Your task to perform on an android device: Go to internet settings Image 0: 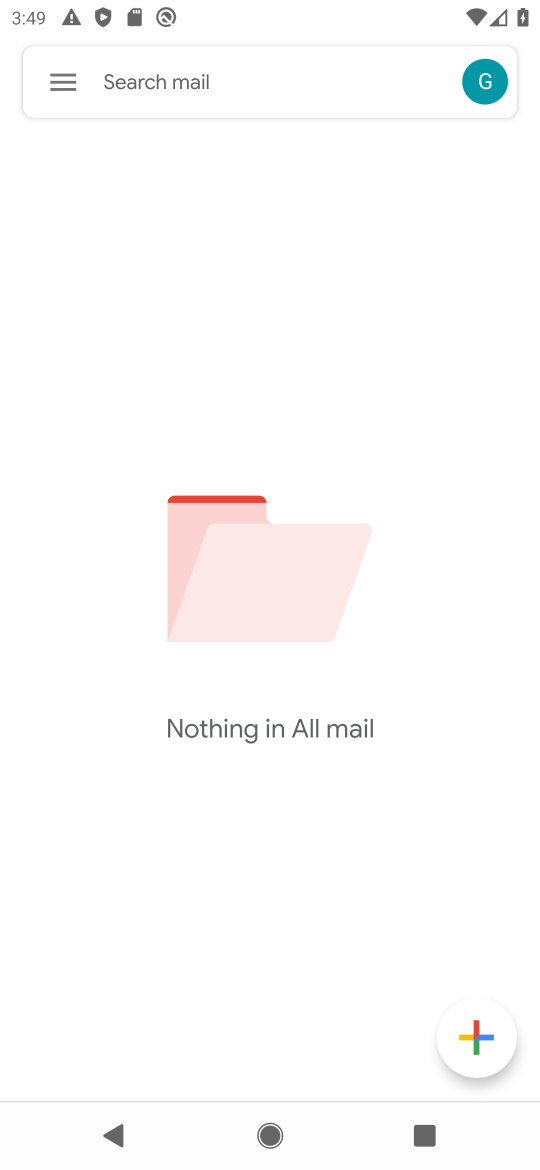
Step 0: press back button
Your task to perform on an android device: Go to internet settings Image 1: 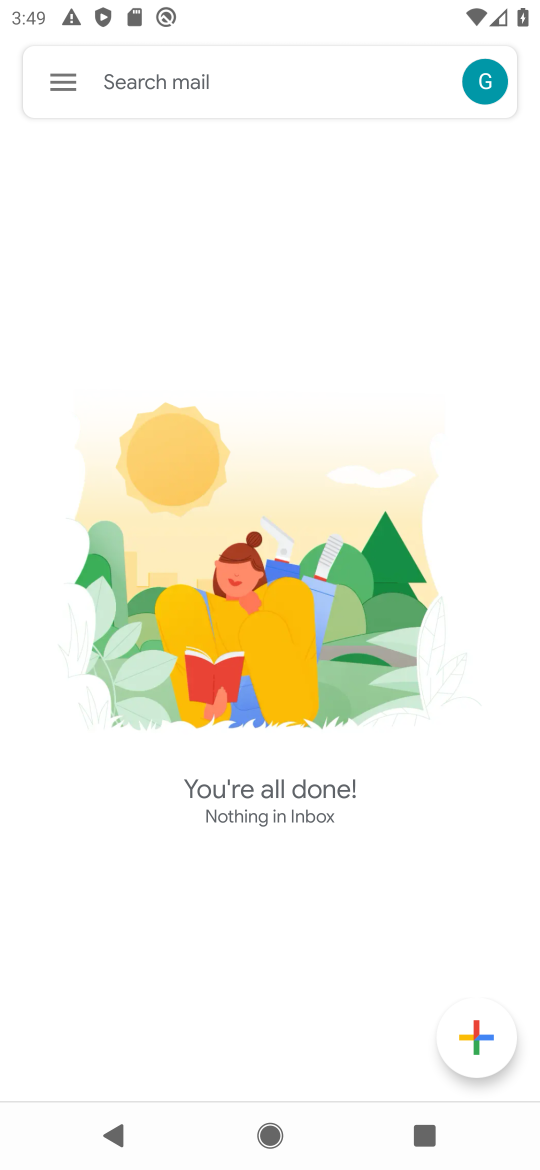
Step 1: press back button
Your task to perform on an android device: Go to internet settings Image 2: 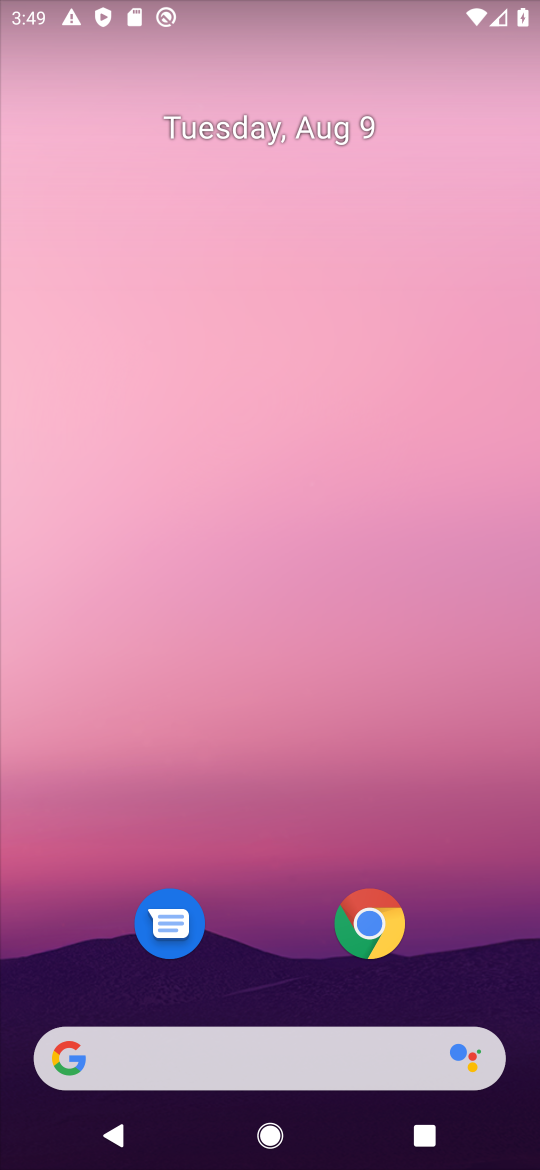
Step 2: drag from (236, 846) to (276, 40)
Your task to perform on an android device: Go to internet settings Image 3: 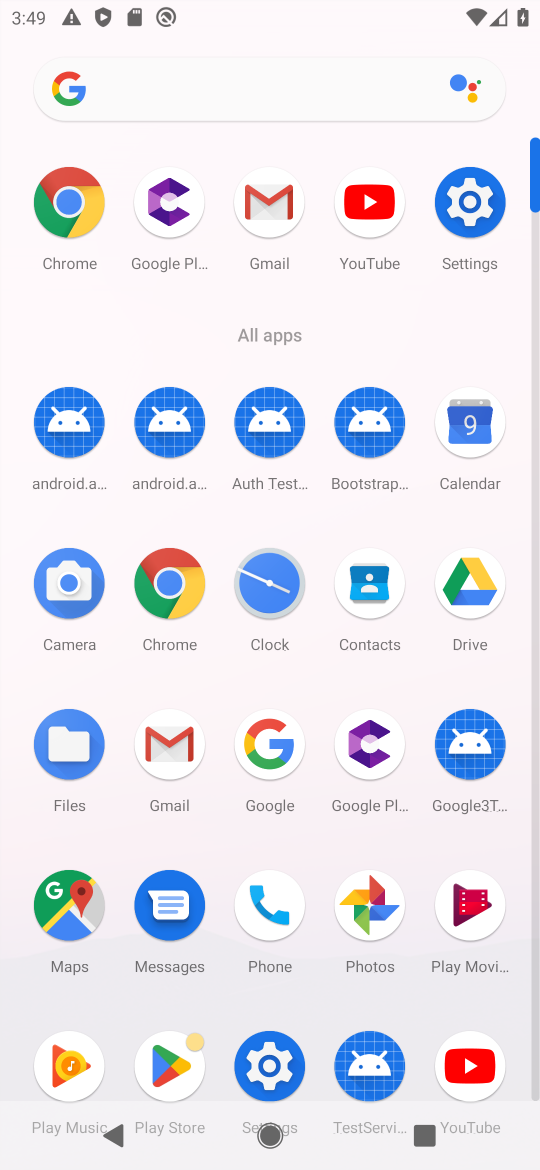
Step 3: click (468, 197)
Your task to perform on an android device: Go to internet settings Image 4: 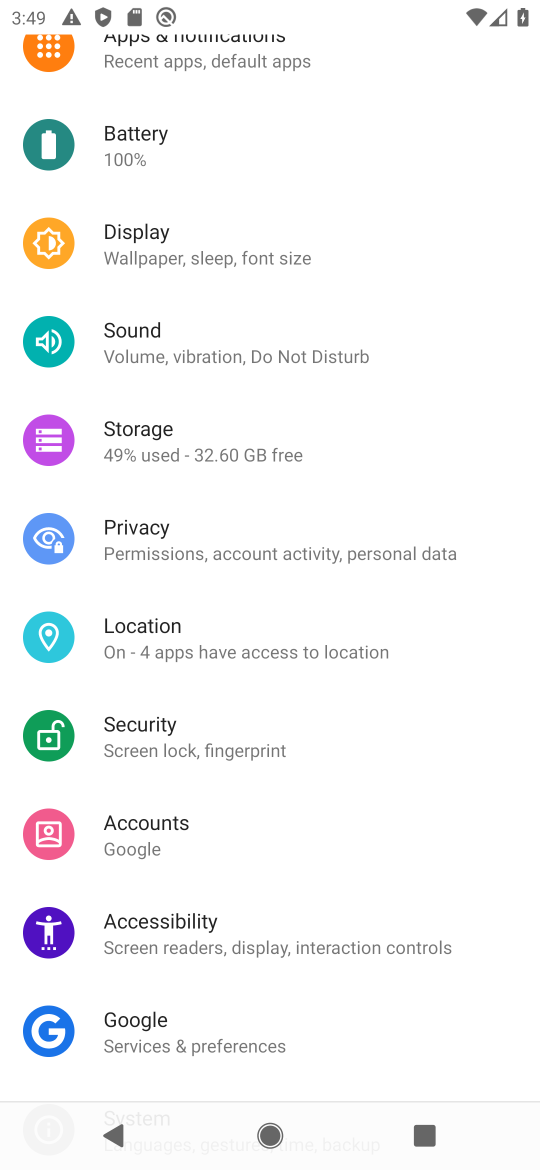
Step 4: drag from (341, 280) to (213, 984)
Your task to perform on an android device: Go to internet settings Image 5: 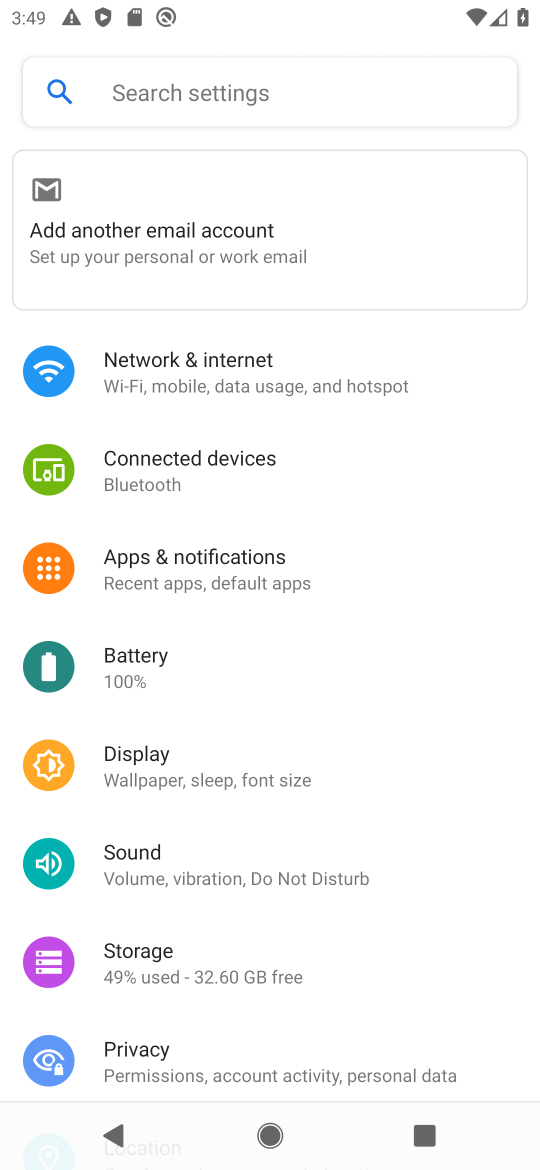
Step 5: click (218, 356)
Your task to perform on an android device: Go to internet settings Image 6: 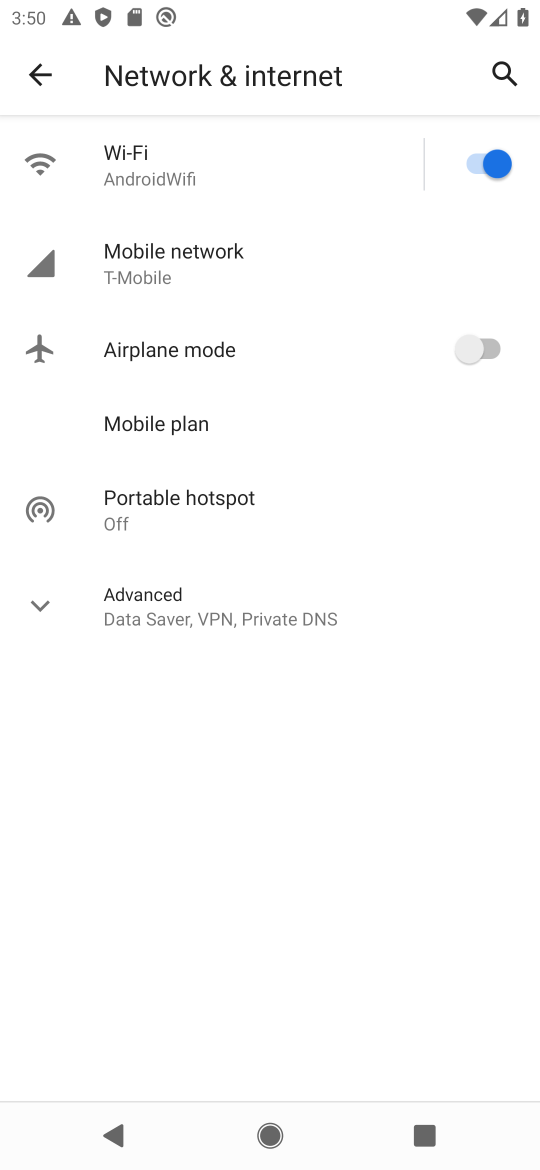
Step 6: task complete